Your task to perform on an android device: Open the calendar app, open the side menu, and click the "Day" option Image 0: 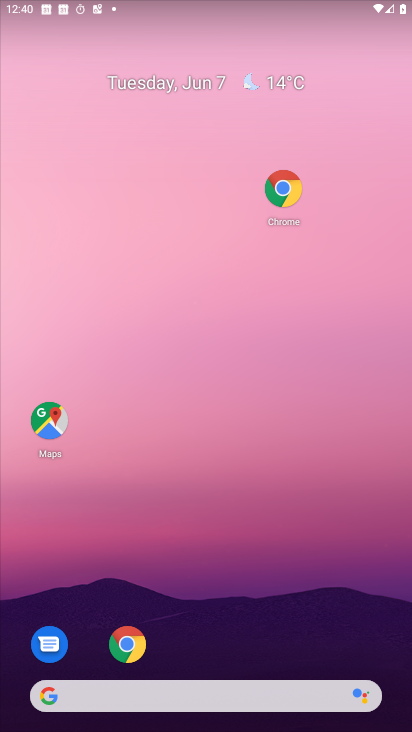
Step 0: drag from (229, 553) to (235, 101)
Your task to perform on an android device: Open the calendar app, open the side menu, and click the "Day" option Image 1: 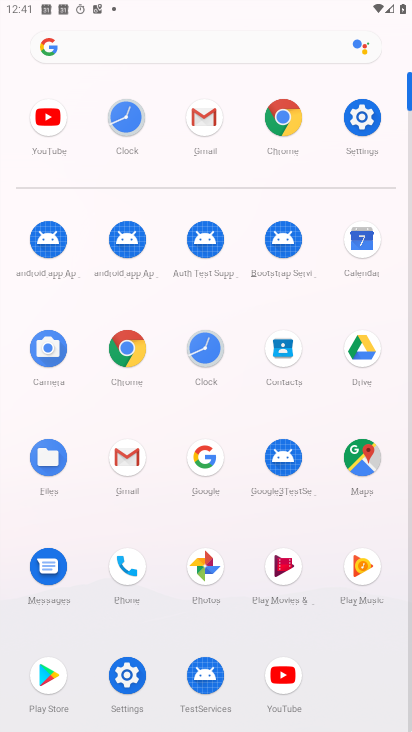
Step 1: click (360, 241)
Your task to perform on an android device: Open the calendar app, open the side menu, and click the "Day" option Image 2: 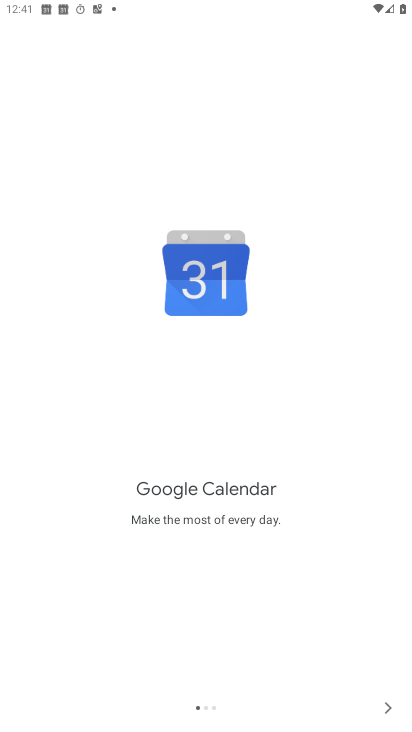
Step 2: click (387, 709)
Your task to perform on an android device: Open the calendar app, open the side menu, and click the "Day" option Image 3: 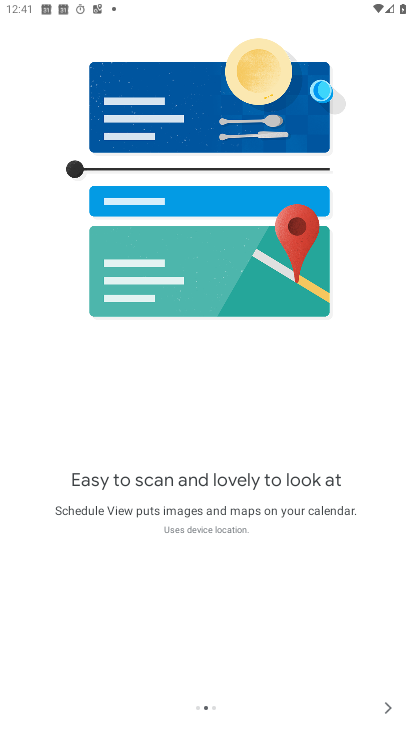
Step 3: click (387, 708)
Your task to perform on an android device: Open the calendar app, open the side menu, and click the "Day" option Image 4: 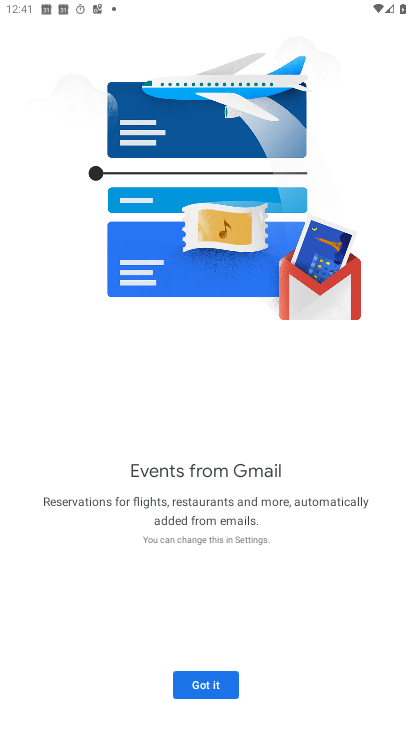
Step 4: click (212, 682)
Your task to perform on an android device: Open the calendar app, open the side menu, and click the "Day" option Image 5: 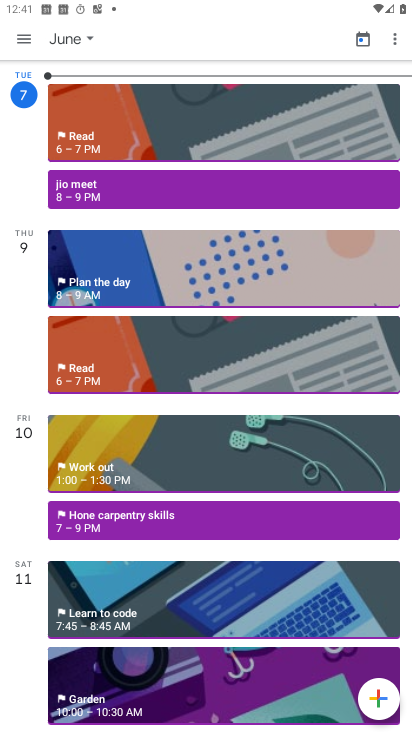
Step 5: click (21, 32)
Your task to perform on an android device: Open the calendar app, open the side menu, and click the "Day" option Image 6: 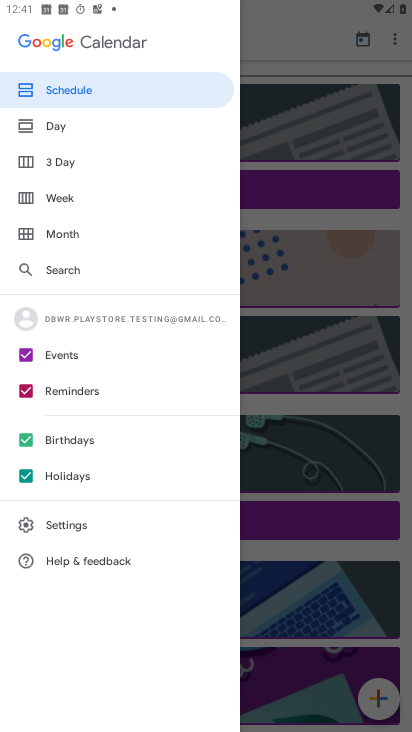
Step 6: click (52, 126)
Your task to perform on an android device: Open the calendar app, open the side menu, and click the "Day" option Image 7: 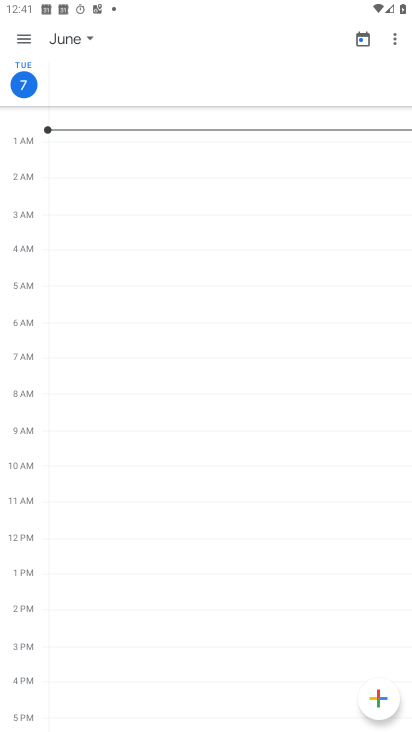
Step 7: task complete